Your task to perform on an android device: What's the weather today? Image 0: 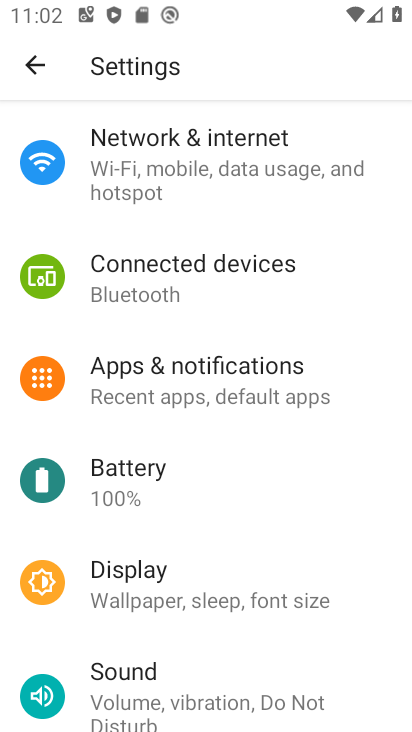
Step 0: click (20, 63)
Your task to perform on an android device: What's the weather today? Image 1: 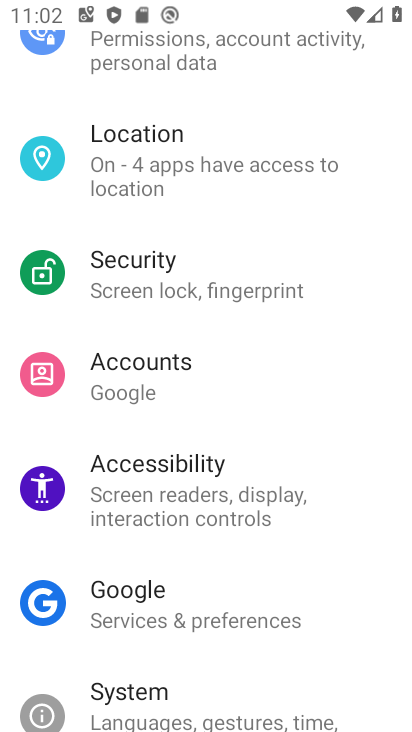
Step 1: press back button
Your task to perform on an android device: What's the weather today? Image 2: 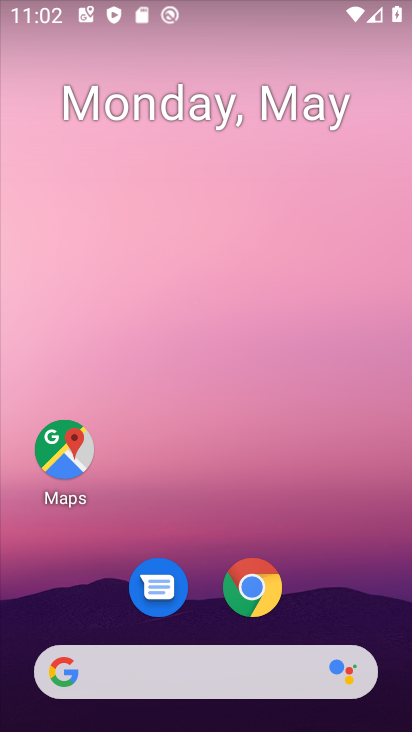
Step 2: click (160, 246)
Your task to perform on an android device: What's the weather today? Image 3: 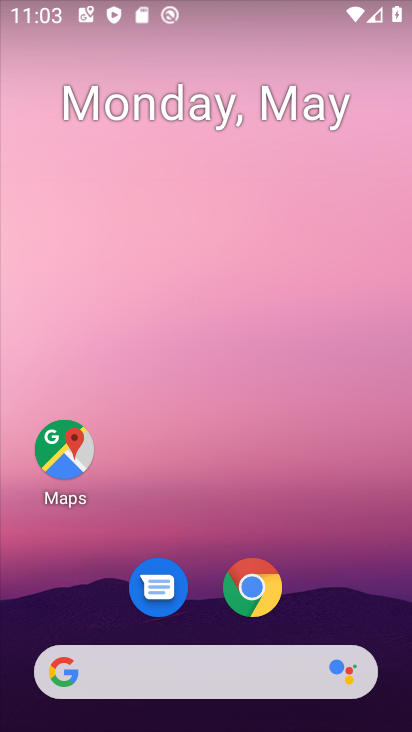
Step 3: drag from (4, 165) to (400, 397)
Your task to perform on an android device: What's the weather today? Image 4: 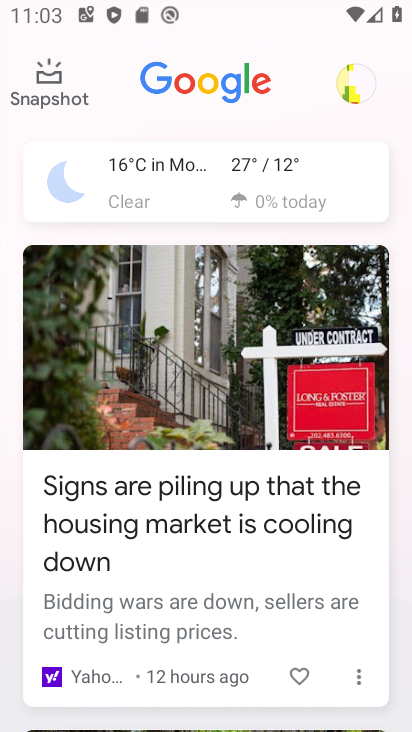
Step 4: click (123, 156)
Your task to perform on an android device: What's the weather today? Image 5: 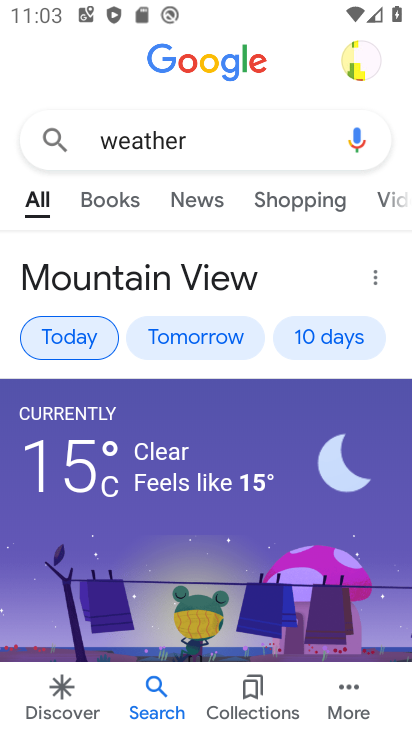
Step 5: task complete